Your task to perform on an android device: Open notification settings Image 0: 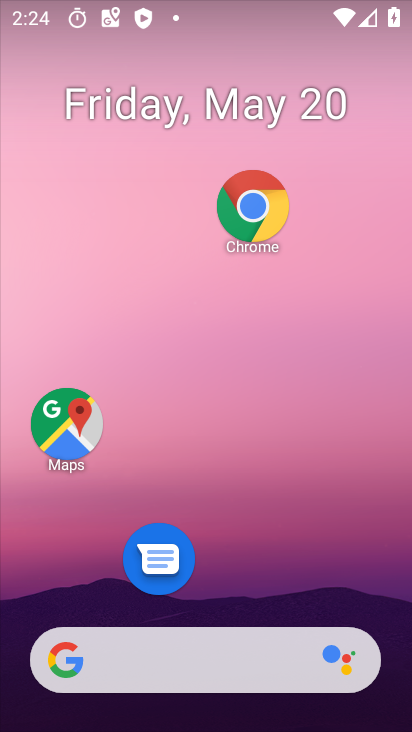
Step 0: drag from (201, 609) to (193, 140)
Your task to perform on an android device: Open notification settings Image 1: 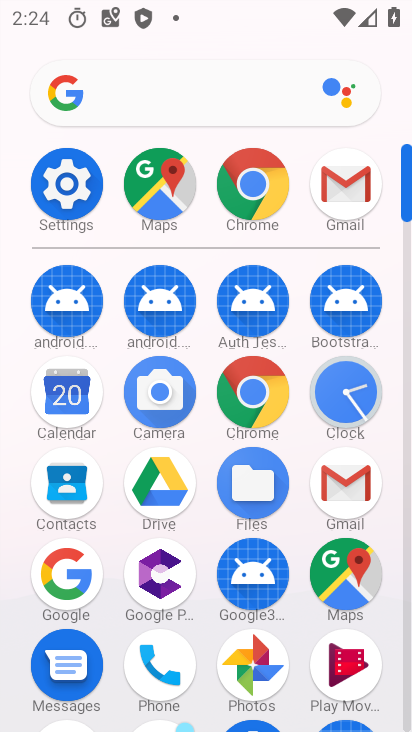
Step 1: click (72, 194)
Your task to perform on an android device: Open notification settings Image 2: 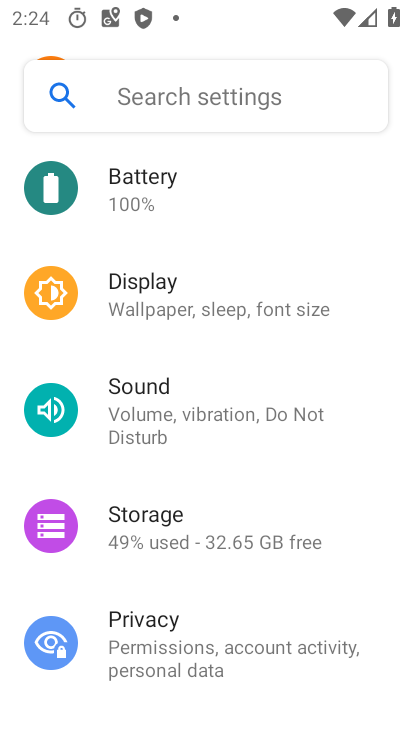
Step 2: drag from (189, 307) to (192, 535)
Your task to perform on an android device: Open notification settings Image 3: 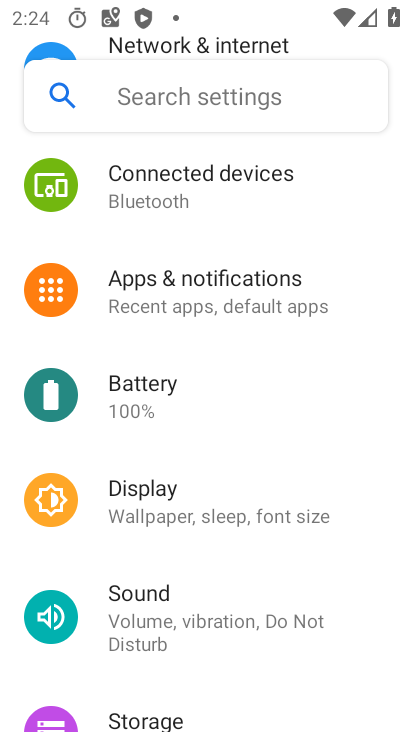
Step 3: click (174, 325)
Your task to perform on an android device: Open notification settings Image 4: 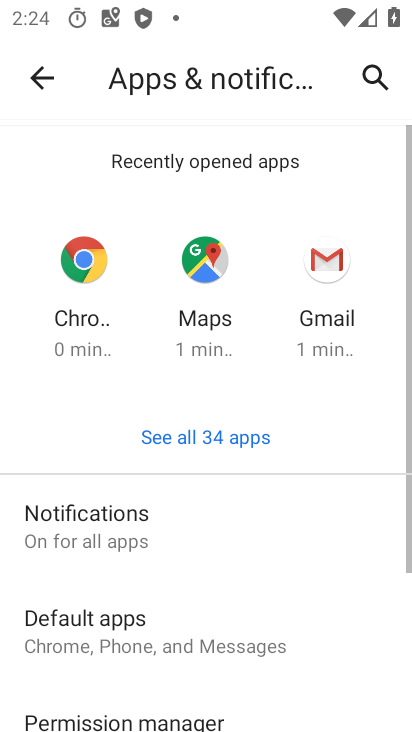
Step 4: click (120, 517)
Your task to perform on an android device: Open notification settings Image 5: 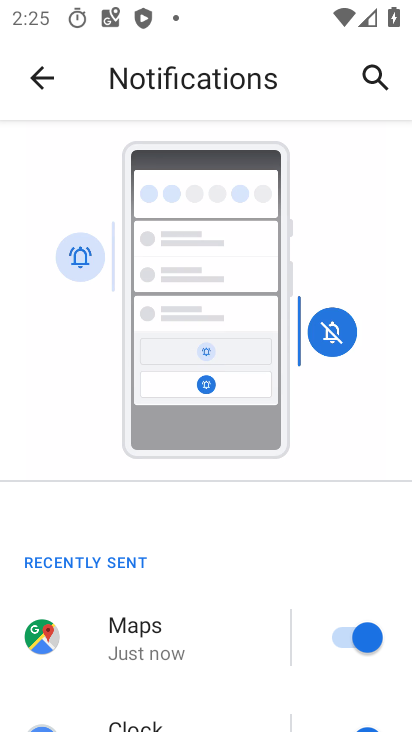
Step 5: task complete